Your task to perform on an android device: Open Youtube and go to the subscriptions tab Image 0: 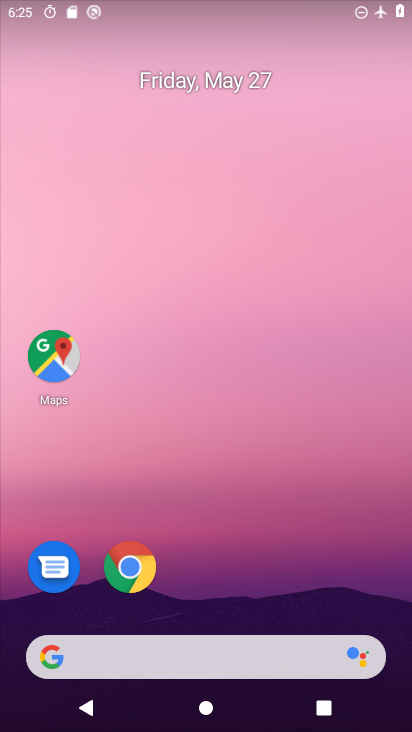
Step 0: drag from (236, 602) to (189, 190)
Your task to perform on an android device: Open Youtube and go to the subscriptions tab Image 1: 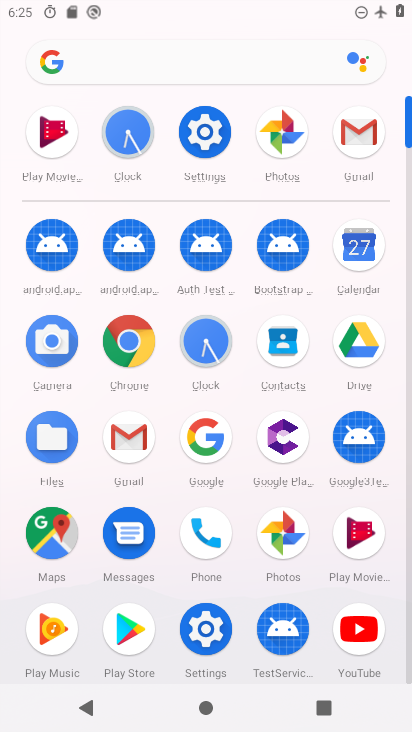
Step 1: click (334, 652)
Your task to perform on an android device: Open Youtube and go to the subscriptions tab Image 2: 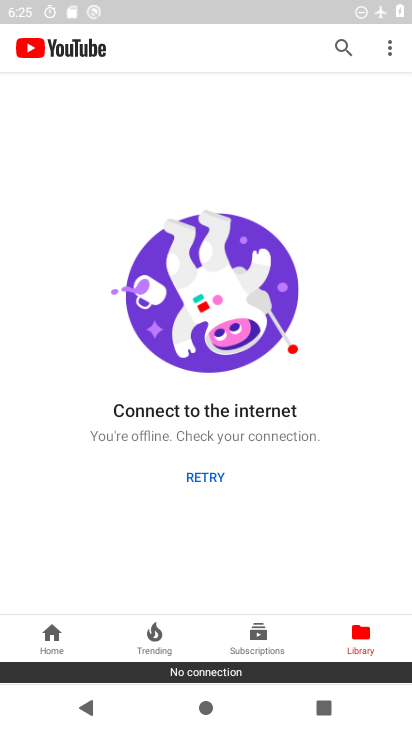
Step 2: click (259, 651)
Your task to perform on an android device: Open Youtube and go to the subscriptions tab Image 3: 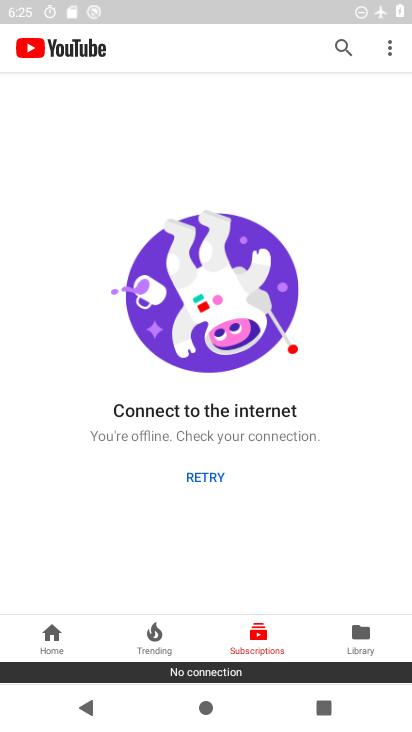
Step 3: task complete